Your task to perform on an android device: What is the recent news? Image 0: 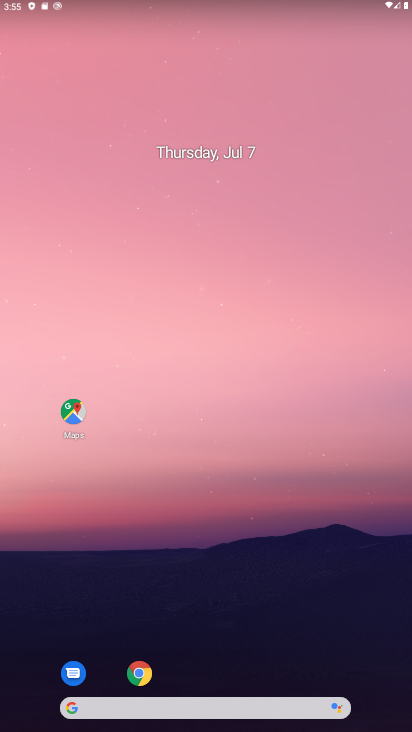
Step 0: drag from (12, 500) to (406, 312)
Your task to perform on an android device: What is the recent news? Image 1: 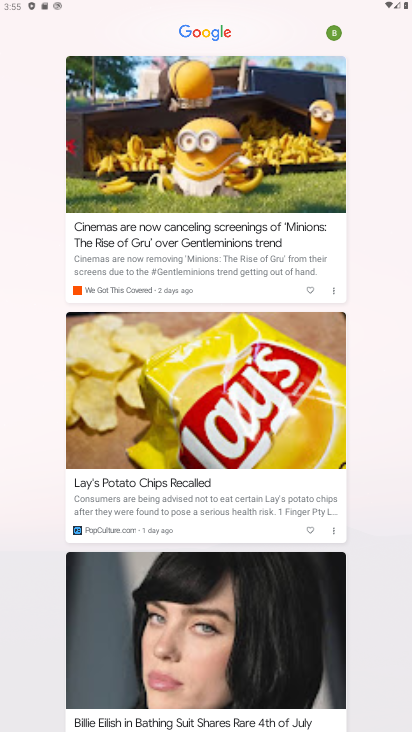
Step 1: task complete